Your task to perform on an android device: What's on my calendar tomorrow? Image 0: 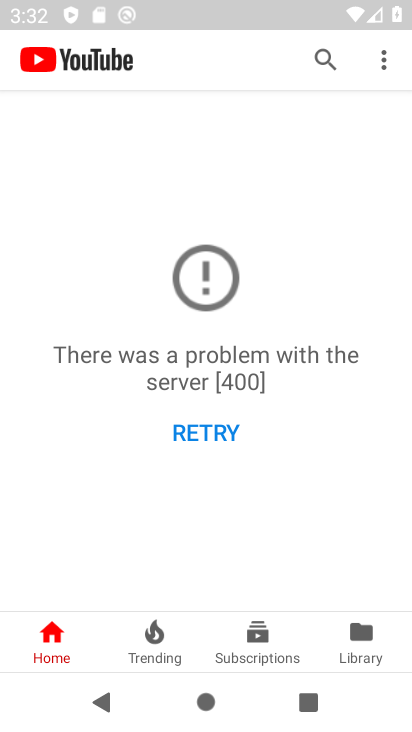
Step 0: press home button
Your task to perform on an android device: What's on my calendar tomorrow? Image 1: 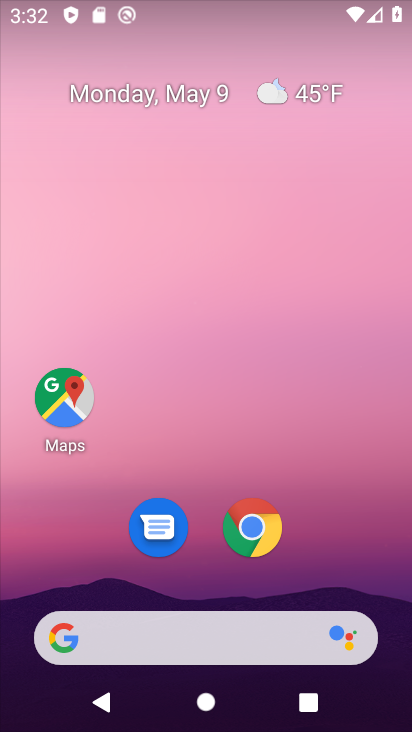
Step 1: drag from (369, 569) to (290, 117)
Your task to perform on an android device: What's on my calendar tomorrow? Image 2: 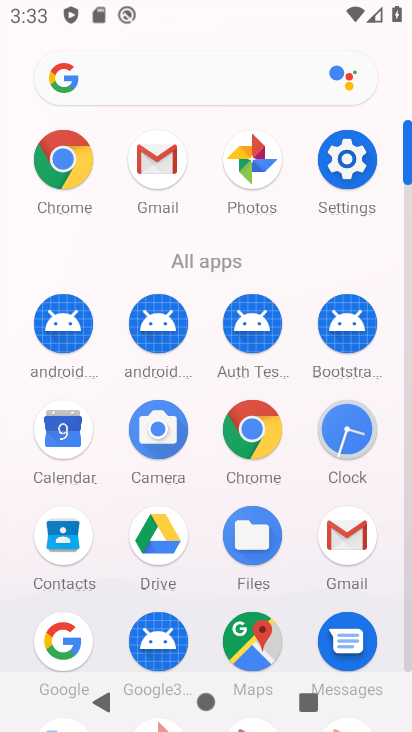
Step 2: click (67, 443)
Your task to perform on an android device: What's on my calendar tomorrow? Image 3: 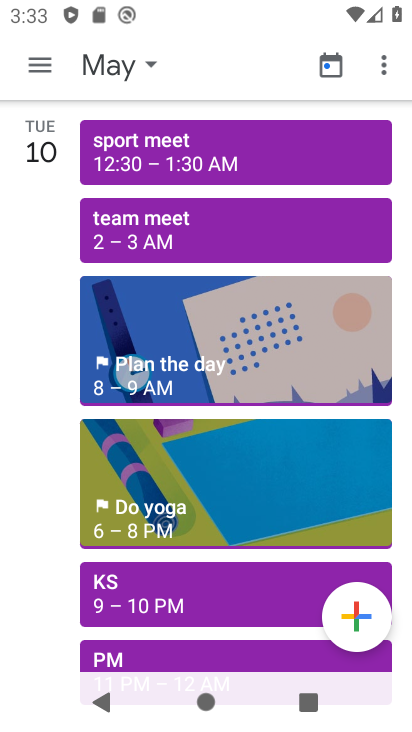
Step 3: task complete